Your task to perform on an android device: Open calendar and show me the third week of next month Image 0: 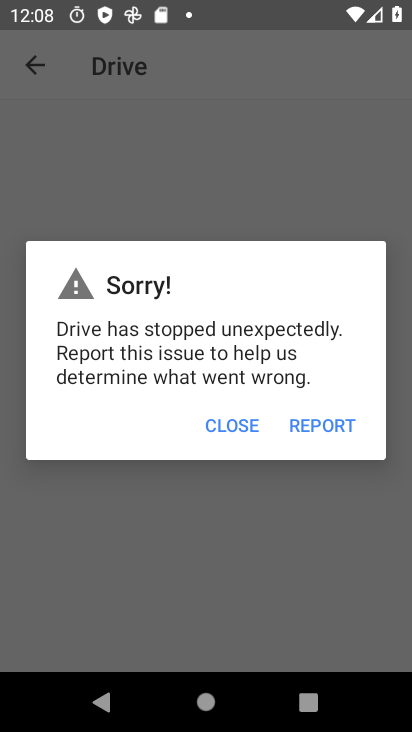
Step 0: press home button
Your task to perform on an android device: Open calendar and show me the third week of next month Image 1: 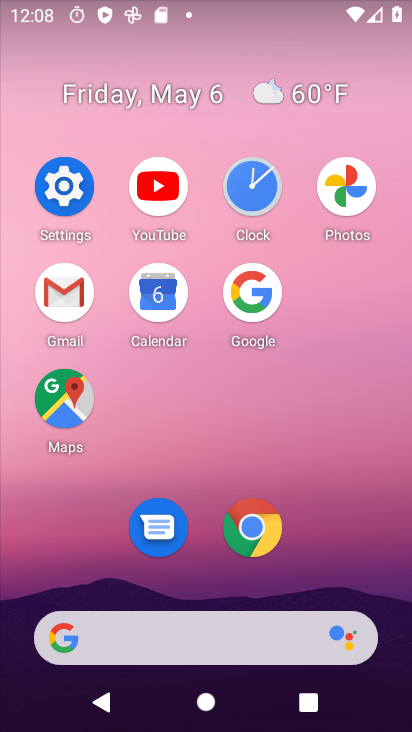
Step 1: click (184, 300)
Your task to perform on an android device: Open calendar and show me the third week of next month Image 2: 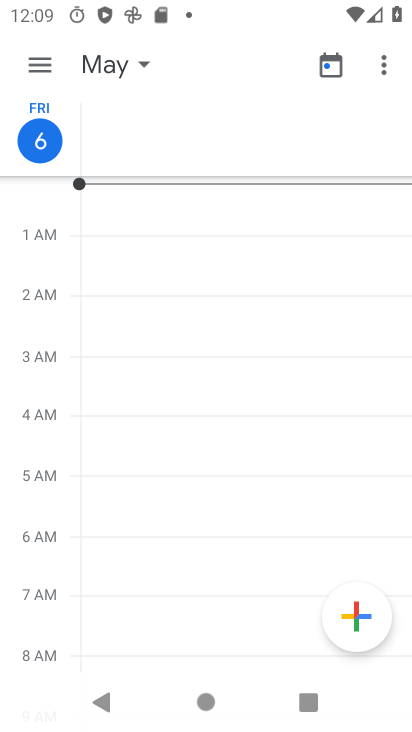
Step 2: click (54, 73)
Your task to perform on an android device: Open calendar and show me the third week of next month Image 3: 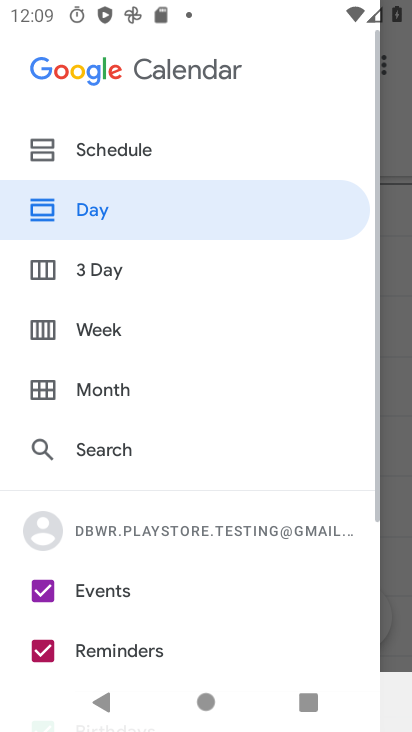
Step 3: click (161, 335)
Your task to perform on an android device: Open calendar and show me the third week of next month Image 4: 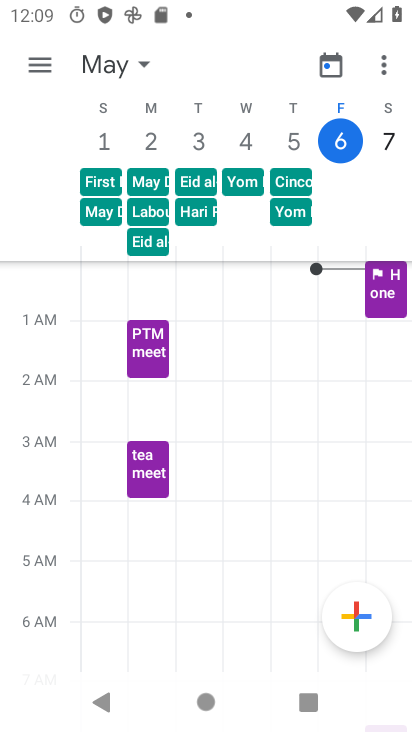
Step 4: click (122, 55)
Your task to perform on an android device: Open calendar and show me the third week of next month Image 5: 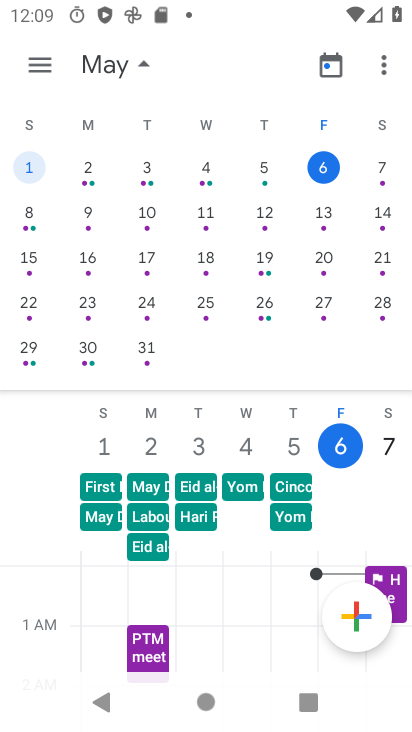
Step 5: drag from (371, 244) to (0, 212)
Your task to perform on an android device: Open calendar and show me the third week of next month Image 6: 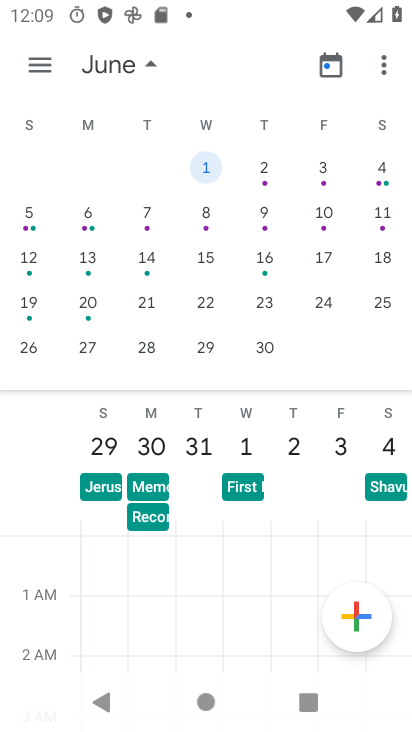
Step 6: click (35, 70)
Your task to perform on an android device: Open calendar and show me the third week of next month Image 7: 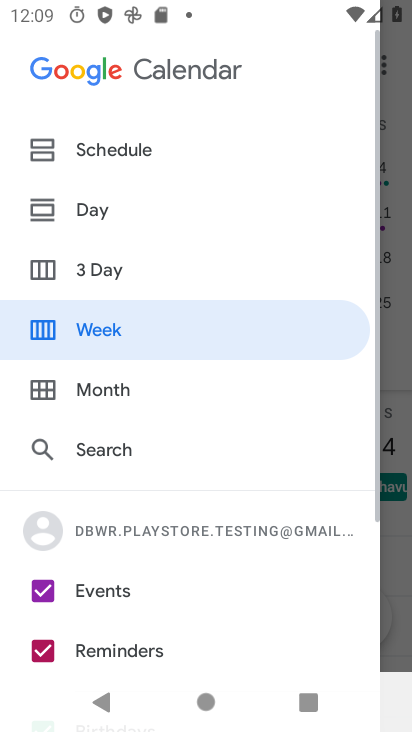
Step 7: click (154, 332)
Your task to perform on an android device: Open calendar and show me the third week of next month Image 8: 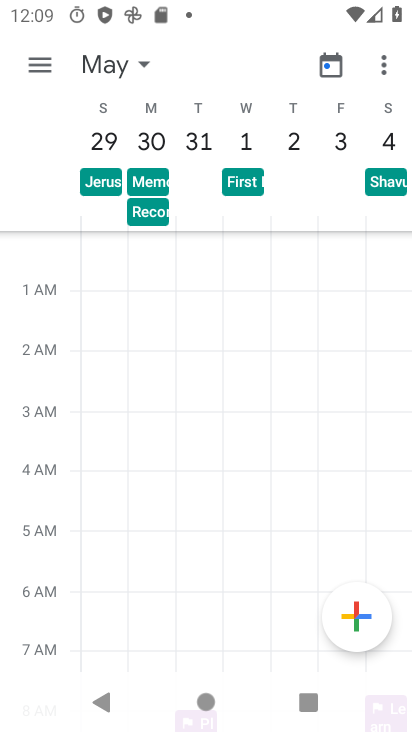
Step 8: task complete